Your task to perform on an android device: create a new album in the google photos Image 0: 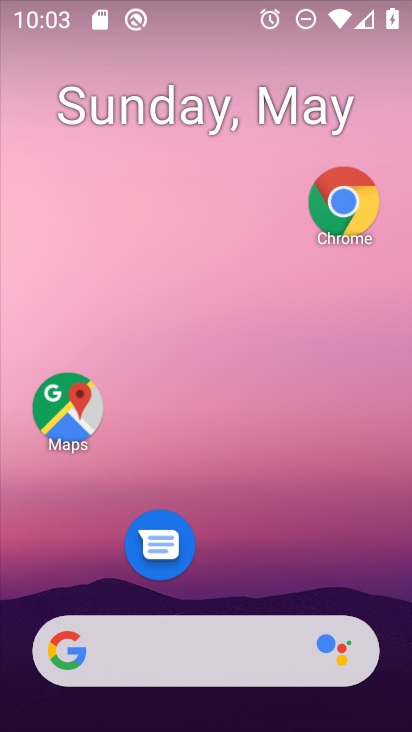
Step 0: drag from (220, 587) to (218, 236)
Your task to perform on an android device: create a new album in the google photos Image 1: 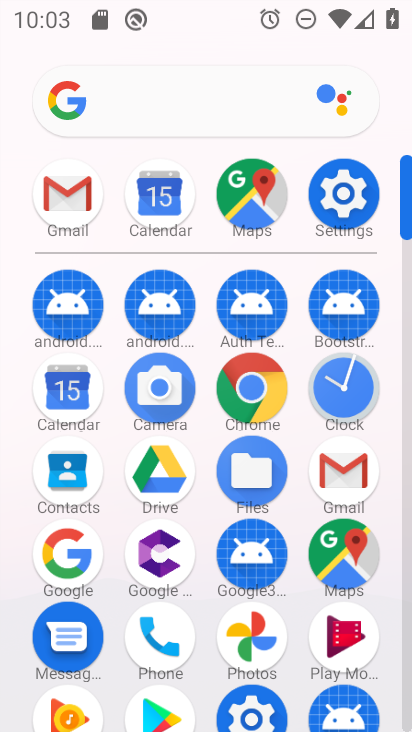
Step 1: click (245, 642)
Your task to perform on an android device: create a new album in the google photos Image 2: 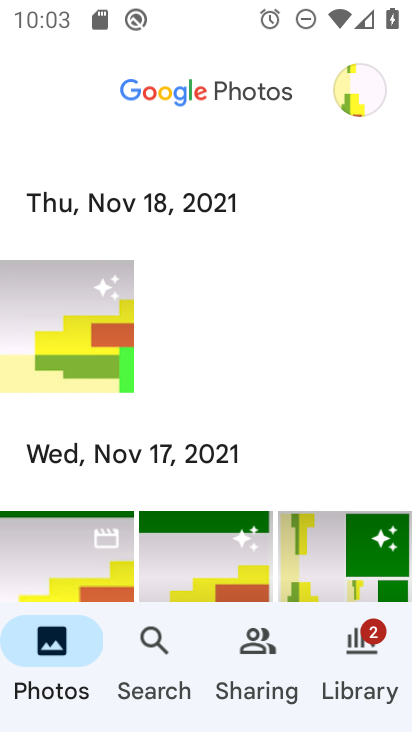
Step 2: click (360, 658)
Your task to perform on an android device: create a new album in the google photos Image 3: 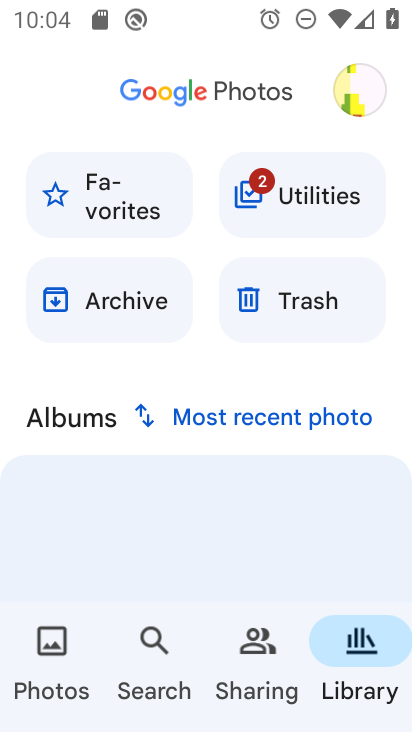
Step 3: drag from (228, 520) to (251, 189)
Your task to perform on an android device: create a new album in the google photos Image 4: 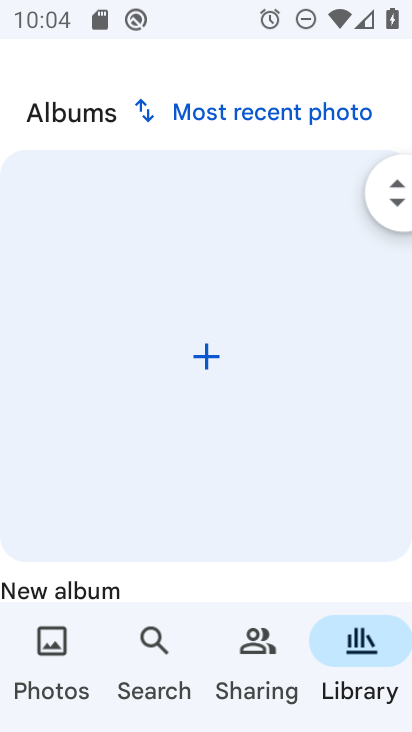
Step 4: click (207, 359)
Your task to perform on an android device: create a new album in the google photos Image 5: 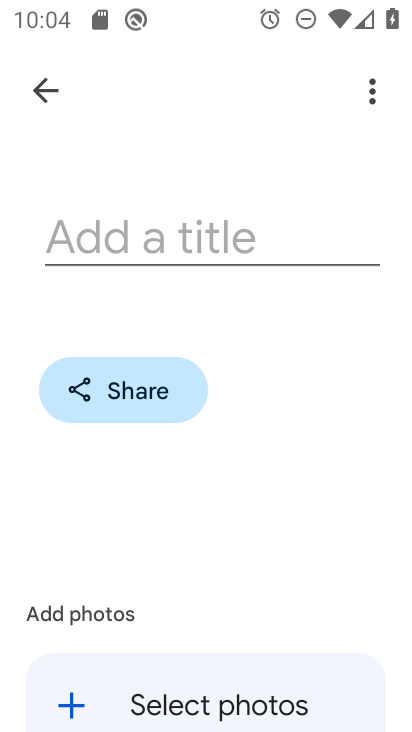
Step 5: click (82, 222)
Your task to perform on an android device: create a new album in the google photos Image 6: 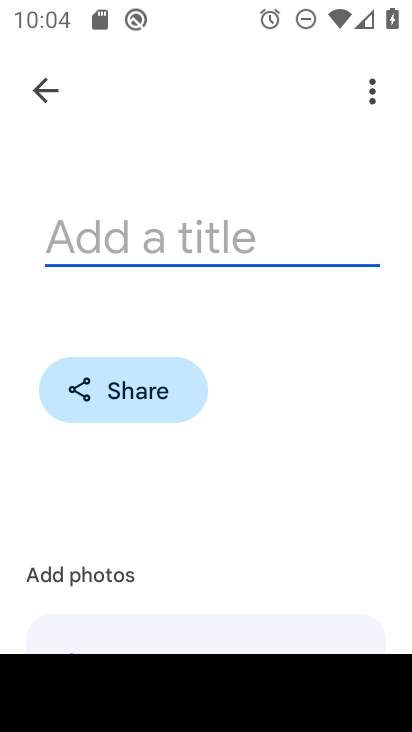
Step 6: type "xcdfgvhnjmkl"
Your task to perform on an android device: create a new album in the google photos Image 7: 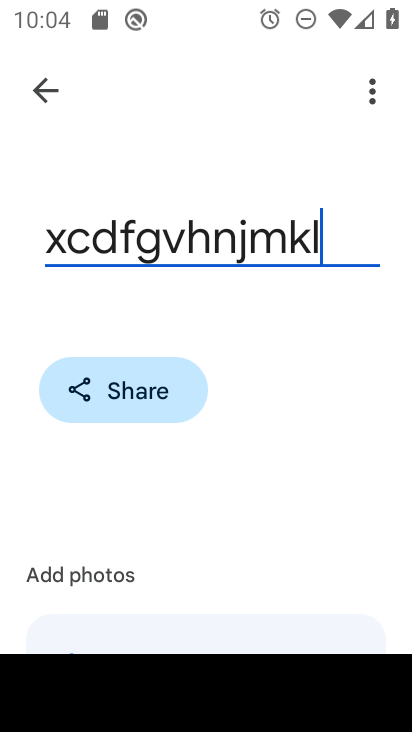
Step 7: drag from (213, 562) to (232, 198)
Your task to perform on an android device: create a new album in the google photos Image 8: 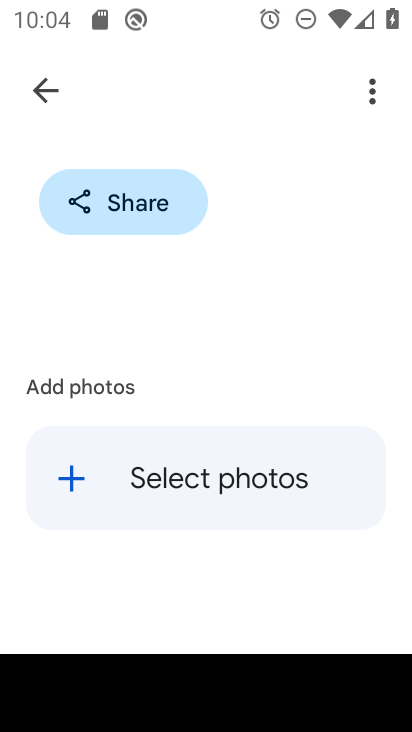
Step 8: click (249, 497)
Your task to perform on an android device: create a new album in the google photos Image 9: 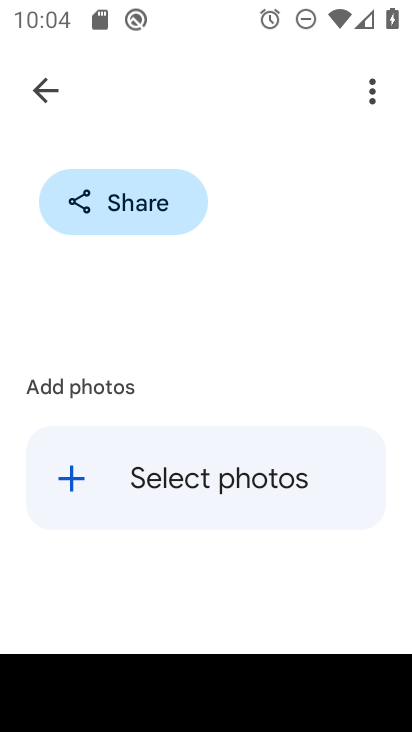
Step 9: click (64, 477)
Your task to perform on an android device: create a new album in the google photos Image 10: 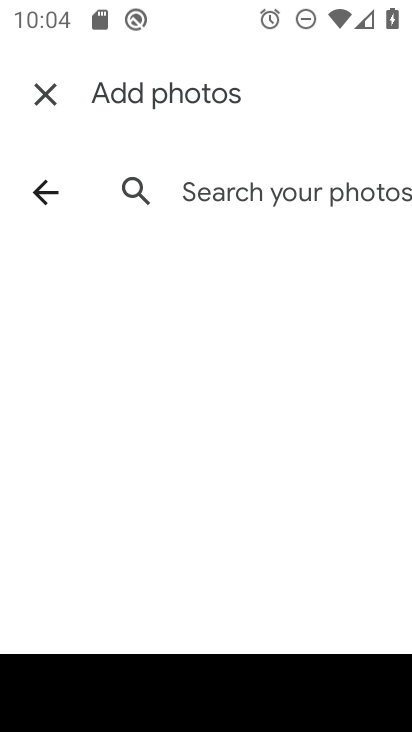
Step 10: click (51, 190)
Your task to perform on an android device: create a new album in the google photos Image 11: 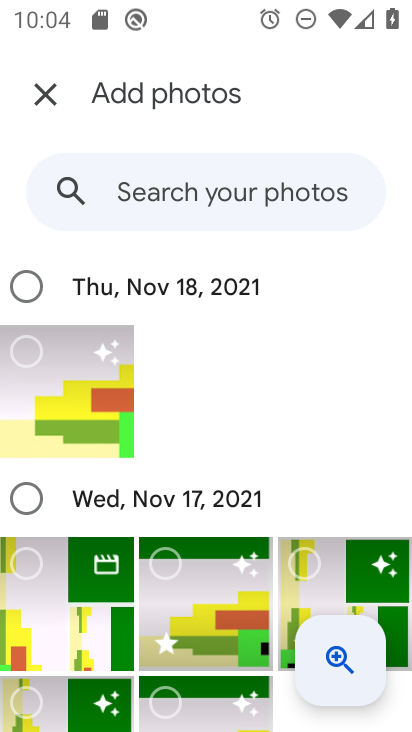
Step 11: click (94, 427)
Your task to perform on an android device: create a new album in the google photos Image 12: 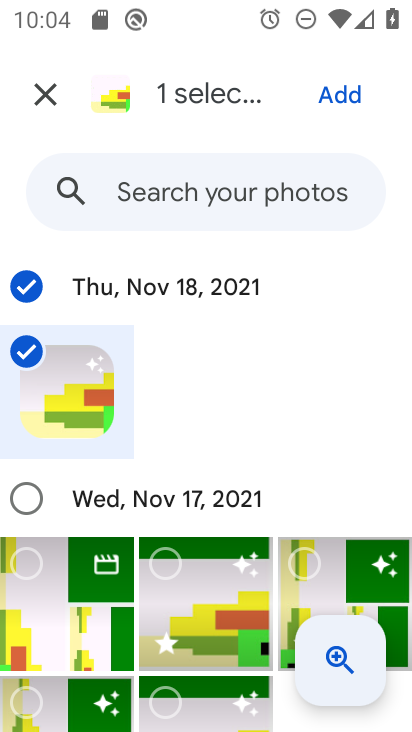
Step 12: click (334, 99)
Your task to perform on an android device: create a new album in the google photos Image 13: 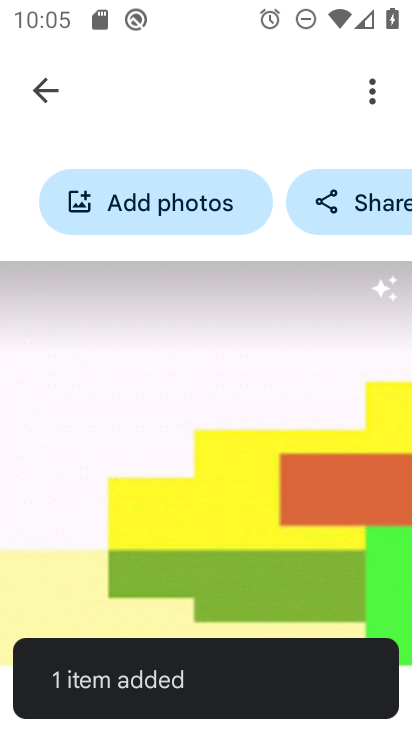
Step 13: task complete